Your task to perform on an android device: empty trash in the gmail app Image 0: 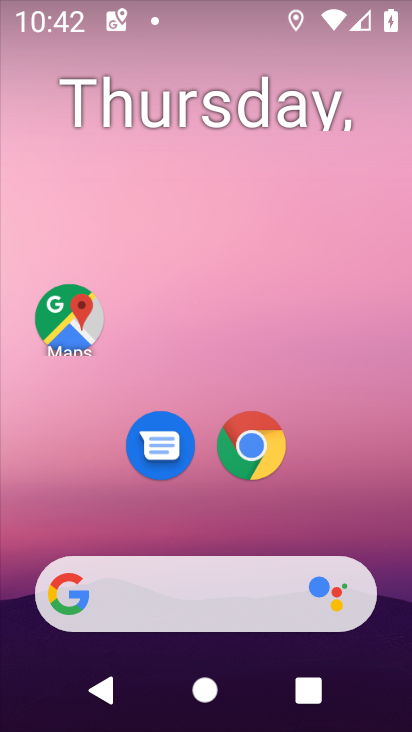
Step 0: drag from (376, 524) to (231, 43)
Your task to perform on an android device: empty trash in the gmail app Image 1: 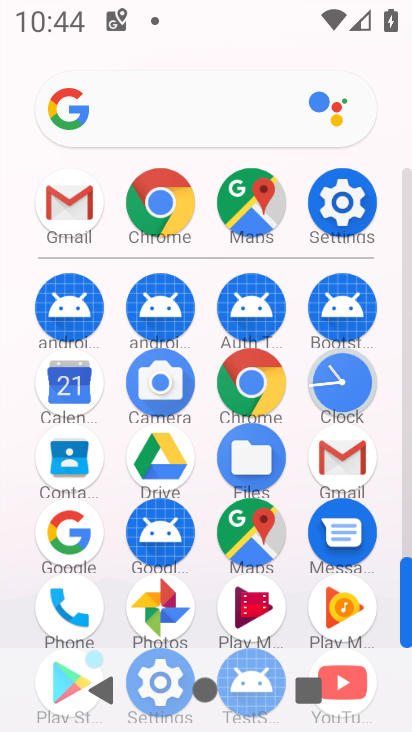
Step 1: click (353, 446)
Your task to perform on an android device: empty trash in the gmail app Image 2: 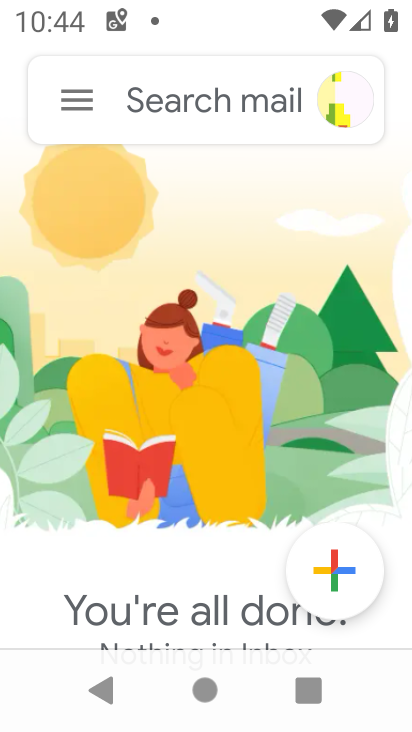
Step 2: click (51, 102)
Your task to perform on an android device: empty trash in the gmail app Image 3: 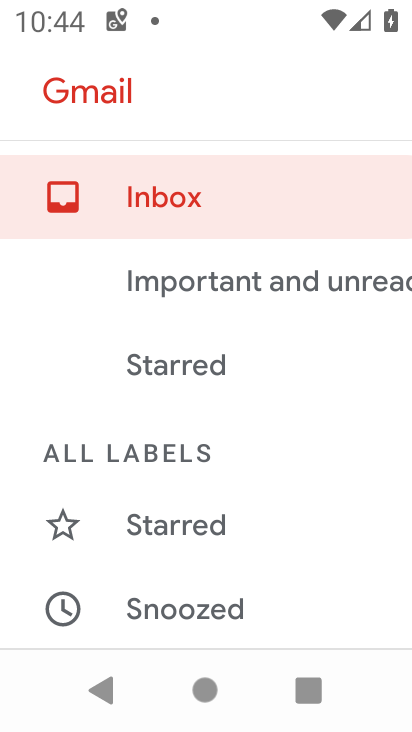
Step 3: drag from (157, 612) to (179, 231)
Your task to perform on an android device: empty trash in the gmail app Image 4: 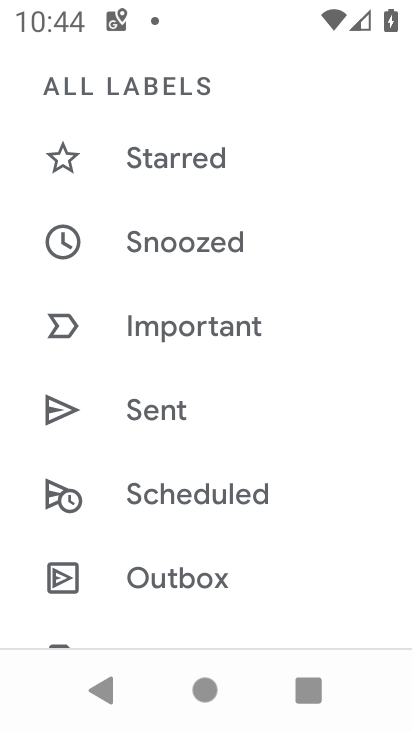
Step 4: drag from (134, 545) to (181, 103)
Your task to perform on an android device: empty trash in the gmail app Image 5: 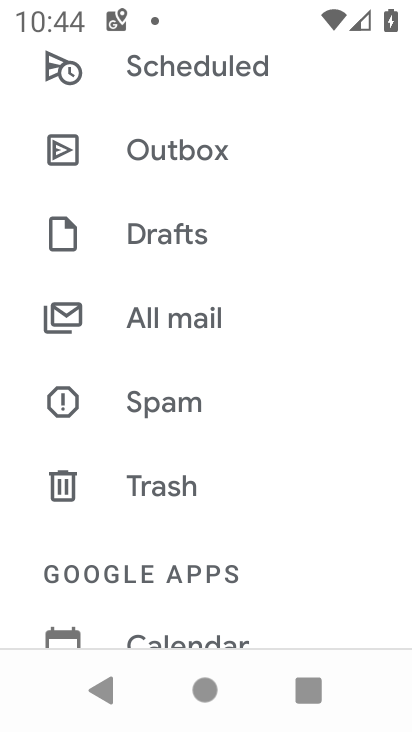
Step 5: click (158, 474)
Your task to perform on an android device: empty trash in the gmail app Image 6: 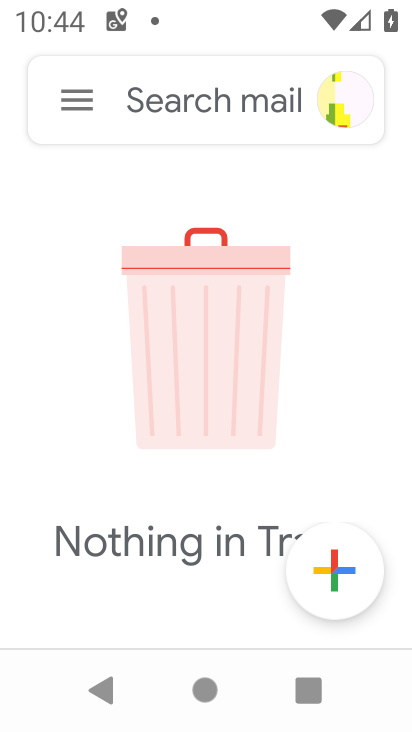
Step 6: task complete